Your task to perform on an android device: delete location history Image 0: 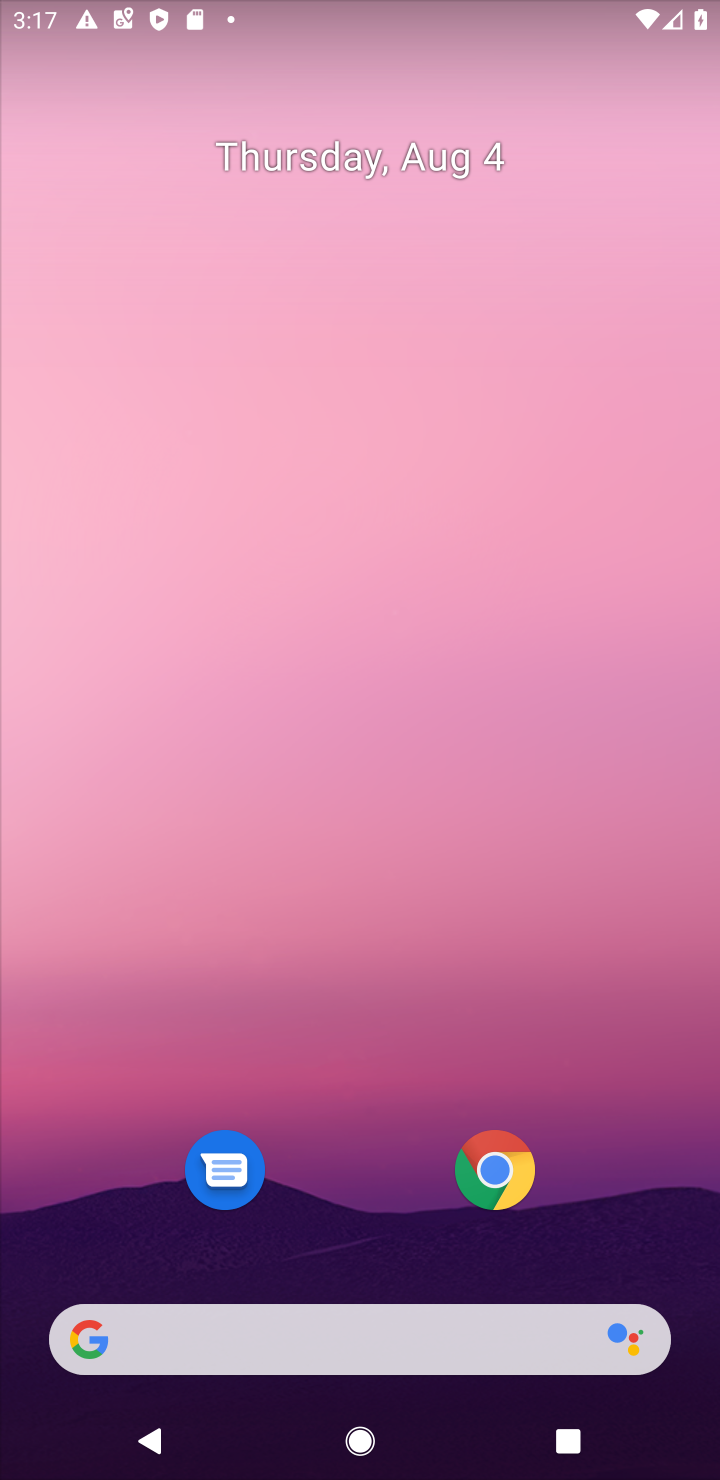
Step 0: drag from (622, 1107) to (511, 177)
Your task to perform on an android device: delete location history Image 1: 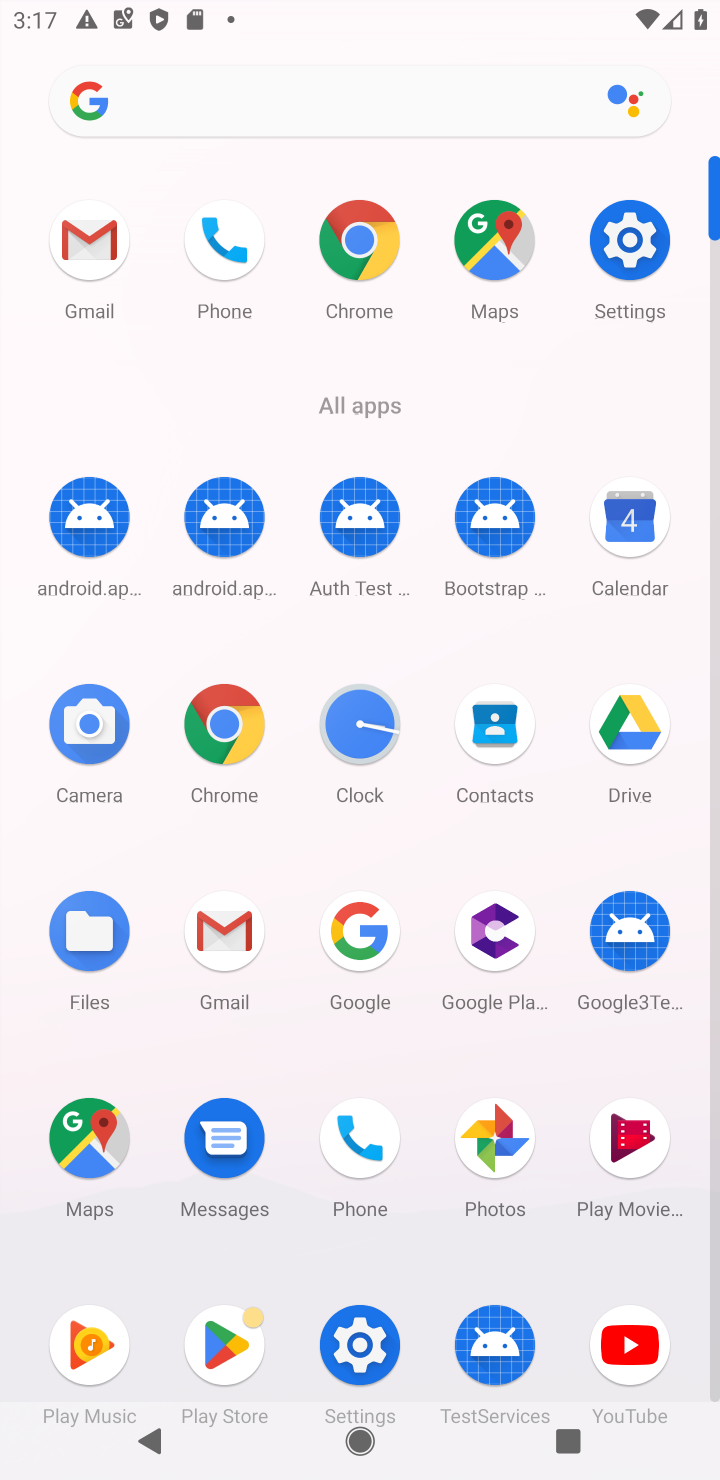
Step 1: click (356, 1346)
Your task to perform on an android device: delete location history Image 2: 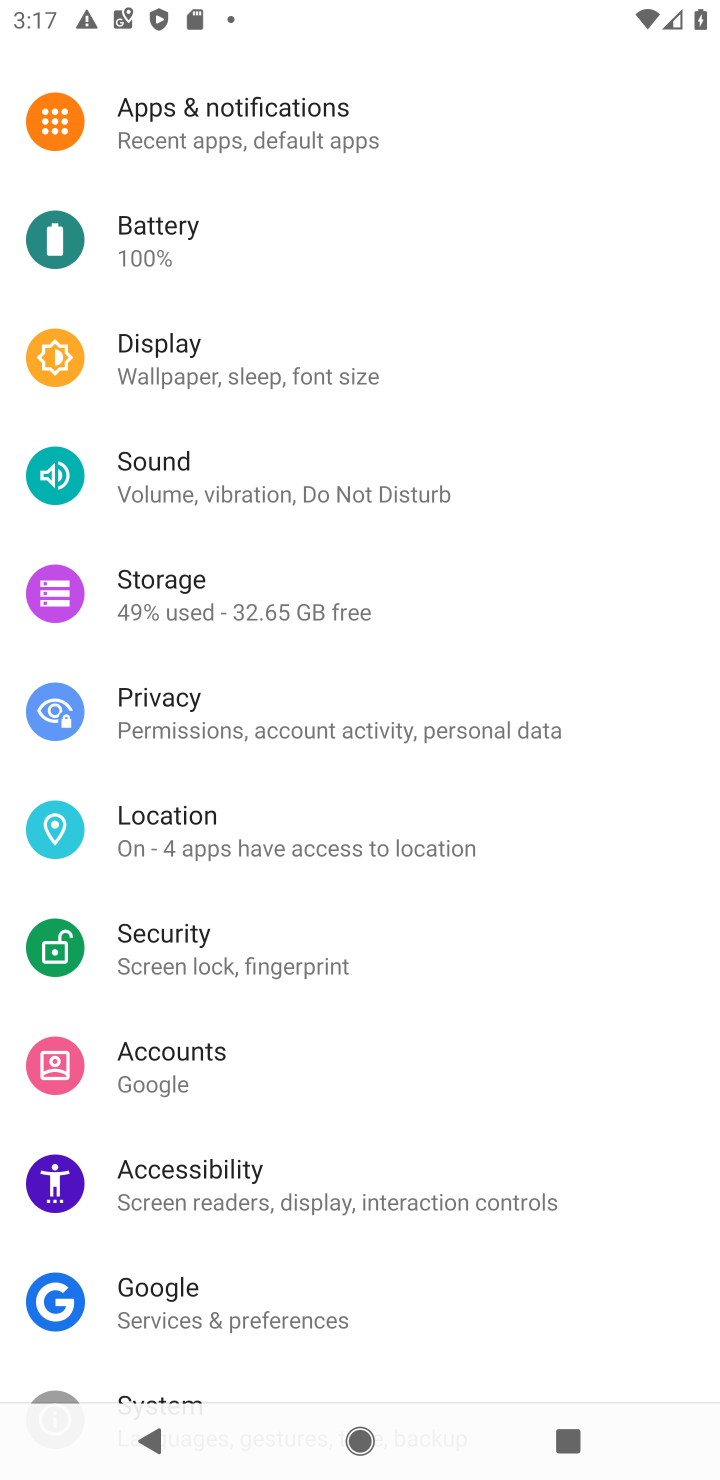
Step 2: click (179, 823)
Your task to perform on an android device: delete location history Image 3: 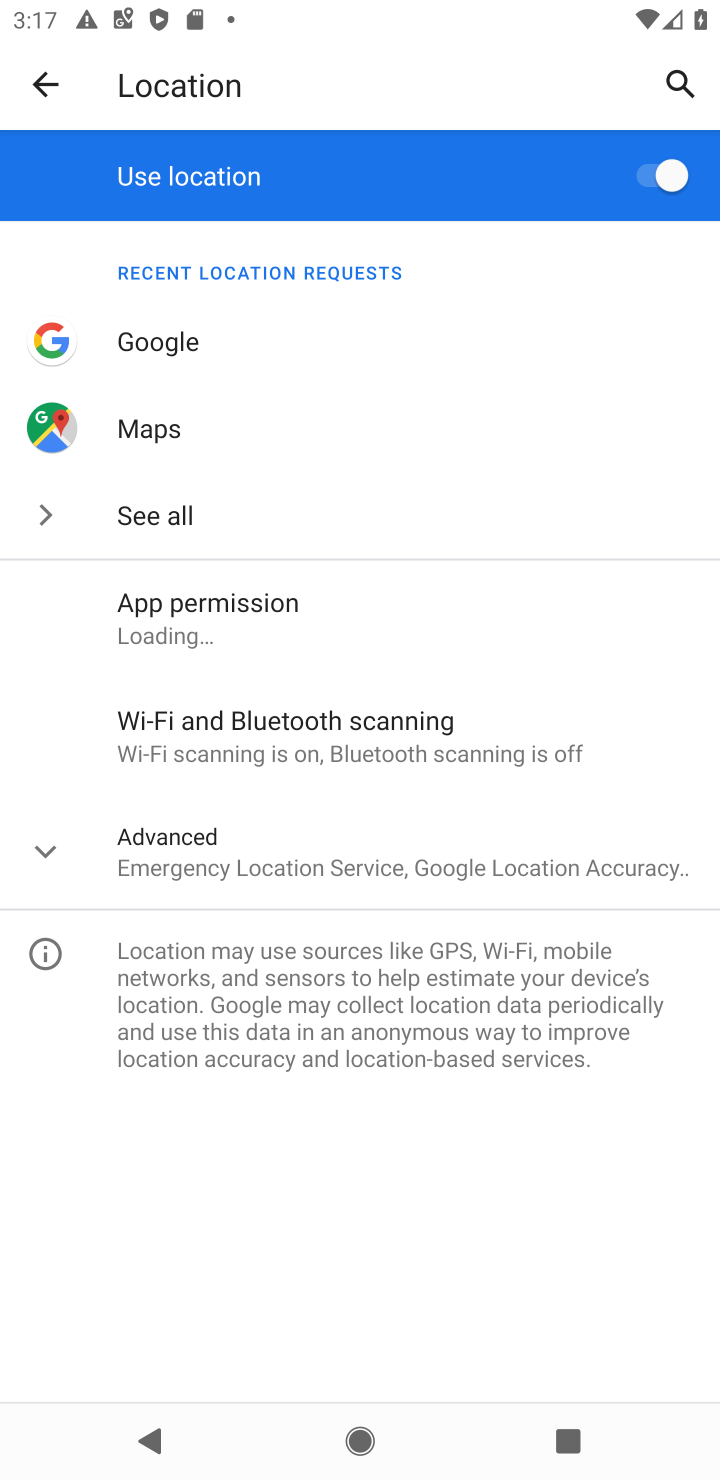
Step 3: click (66, 841)
Your task to perform on an android device: delete location history Image 4: 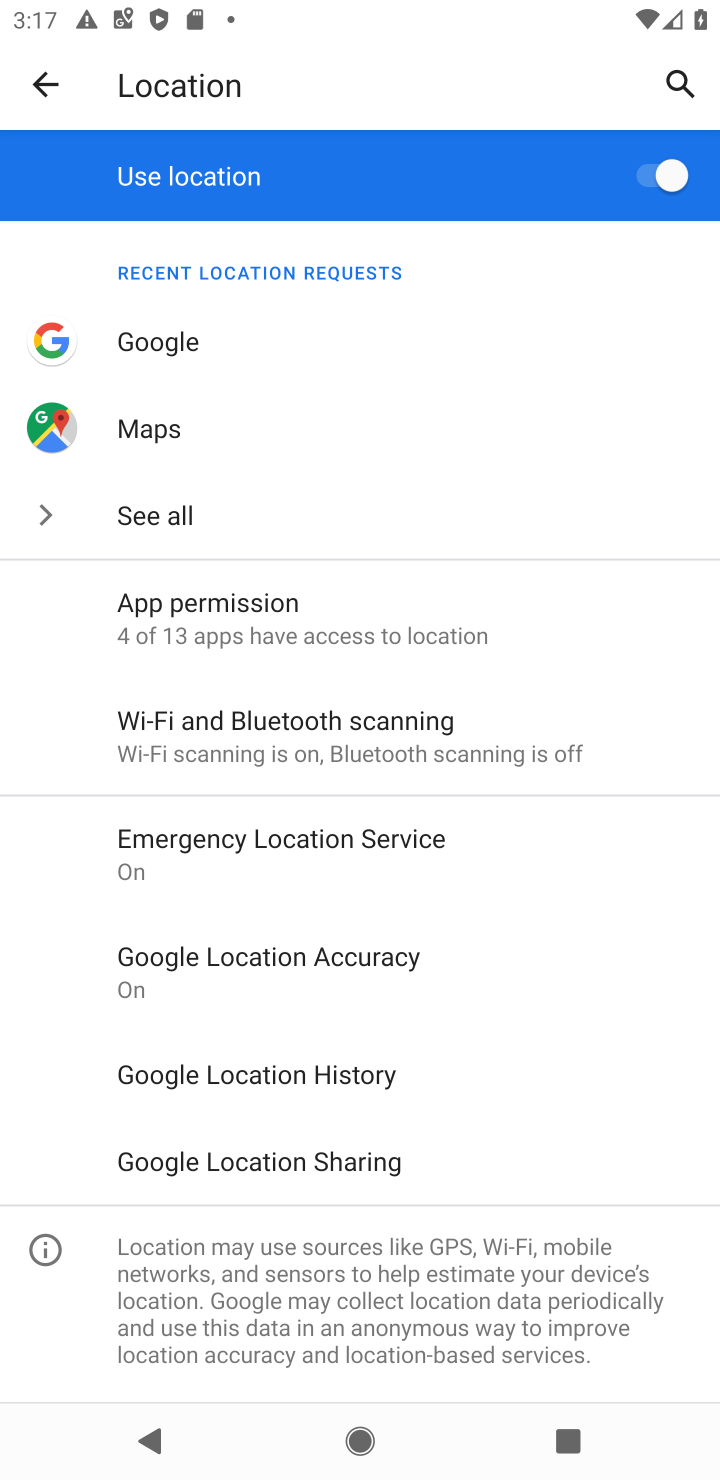
Step 4: click (181, 1065)
Your task to perform on an android device: delete location history Image 5: 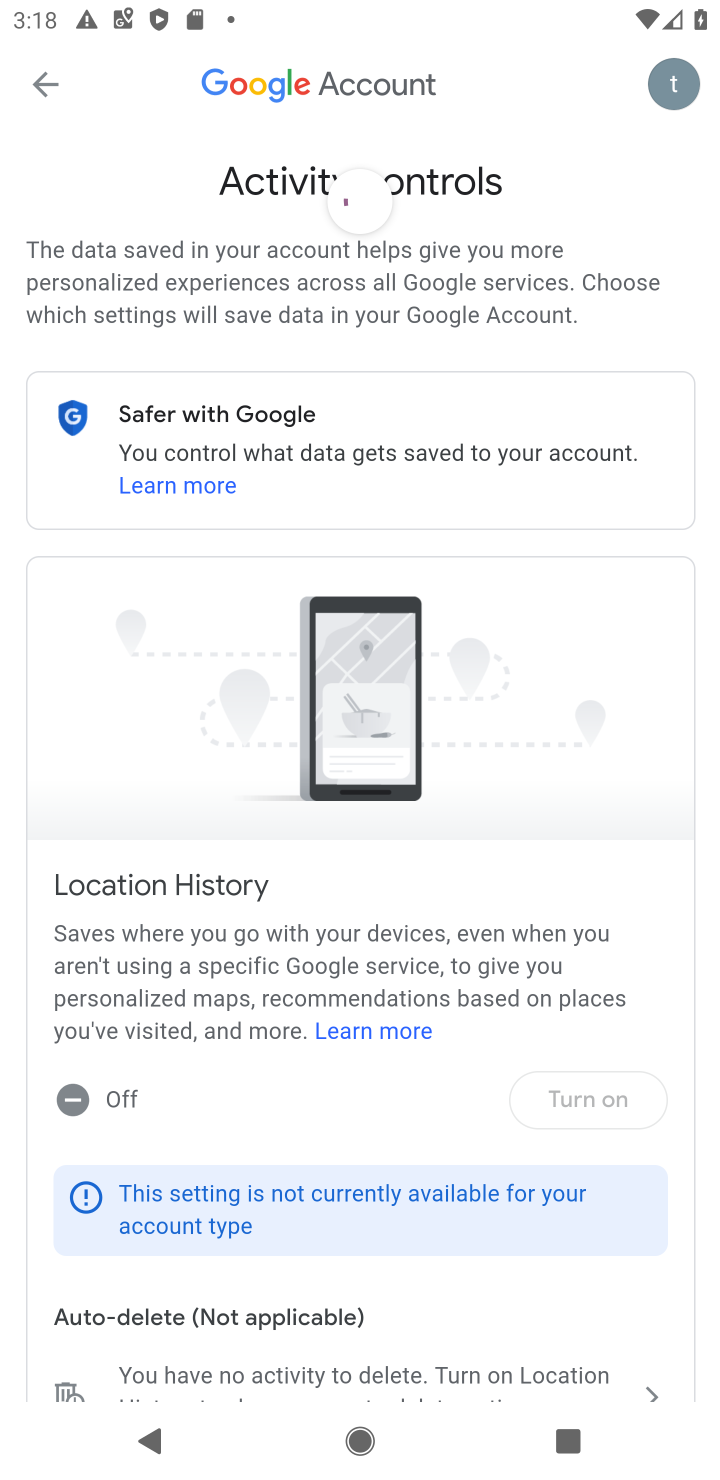
Step 5: drag from (374, 1274) to (389, 874)
Your task to perform on an android device: delete location history Image 6: 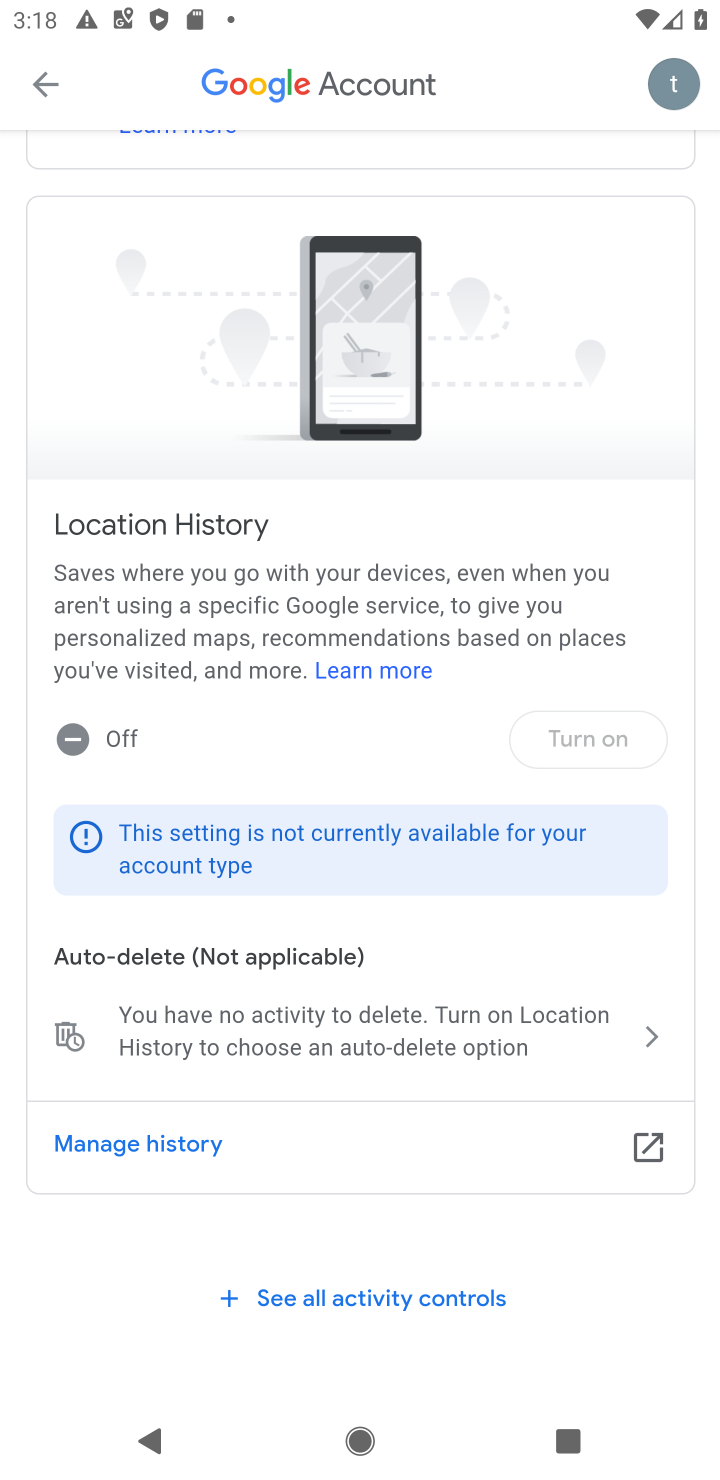
Step 6: drag from (440, 1248) to (425, 736)
Your task to perform on an android device: delete location history Image 7: 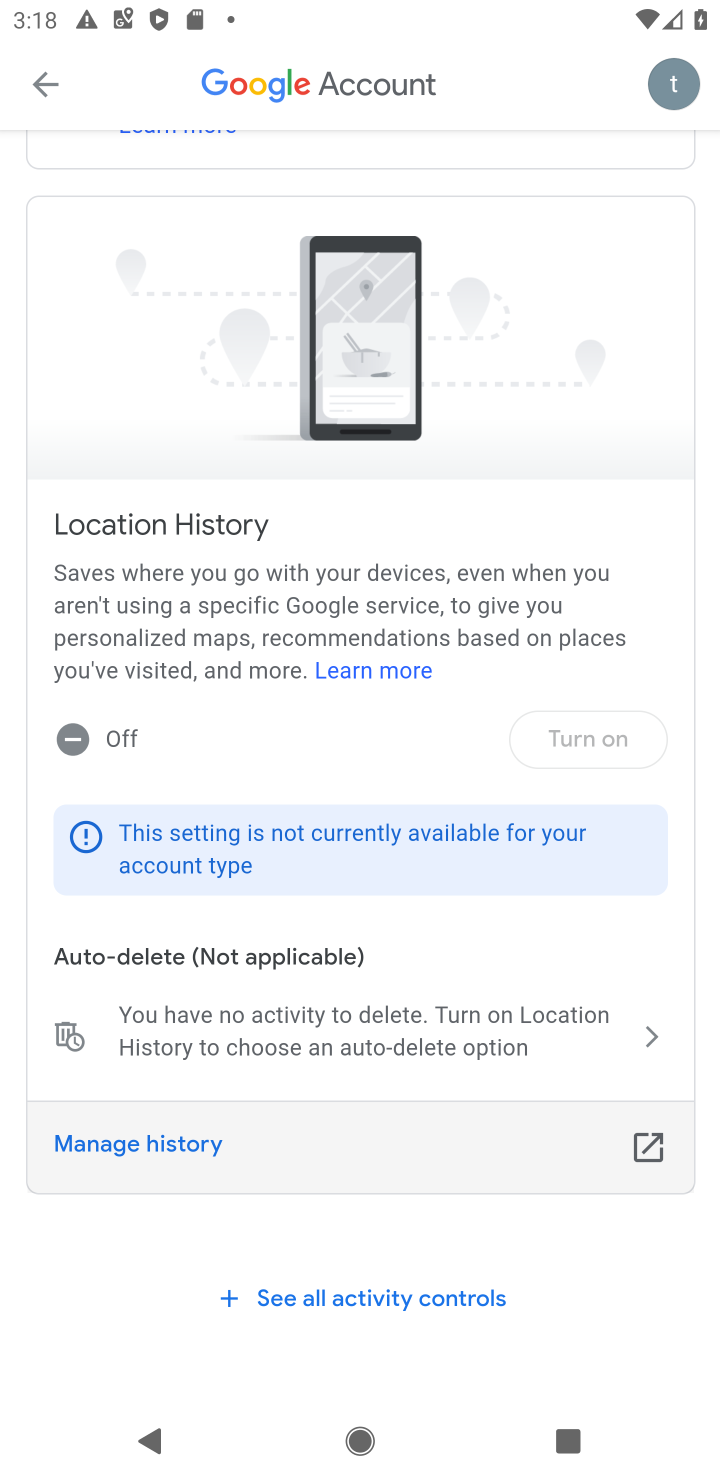
Step 7: click (439, 1028)
Your task to perform on an android device: delete location history Image 8: 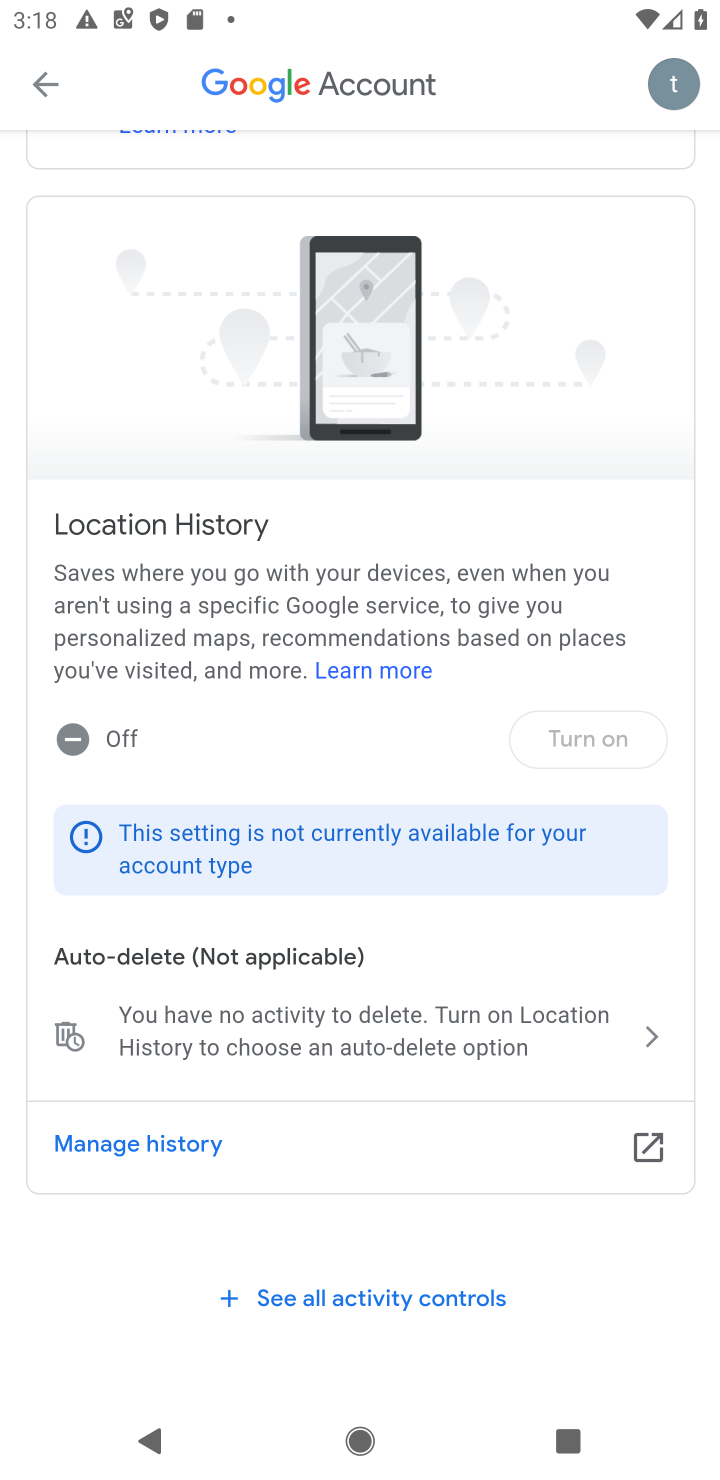
Step 8: click (647, 1025)
Your task to perform on an android device: delete location history Image 9: 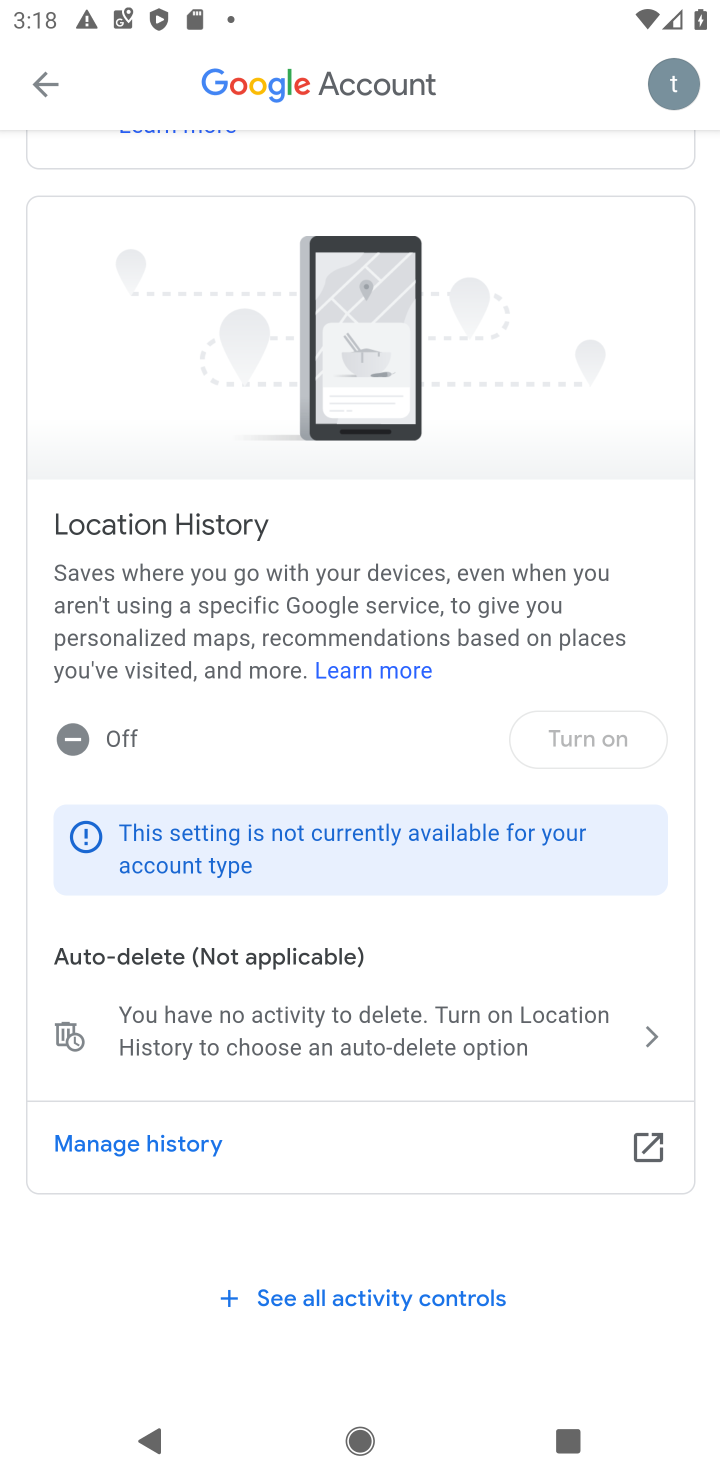
Step 9: task complete